Your task to perform on an android device: toggle improve location accuracy Image 0: 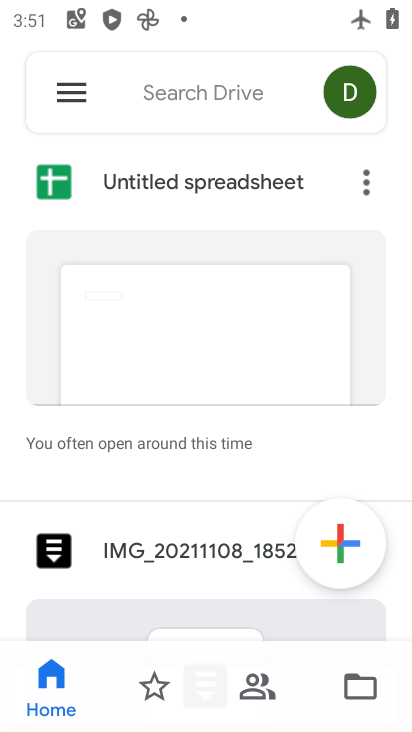
Step 0: press home button
Your task to perform on an android device: toggle improve location accuracy Image 1: 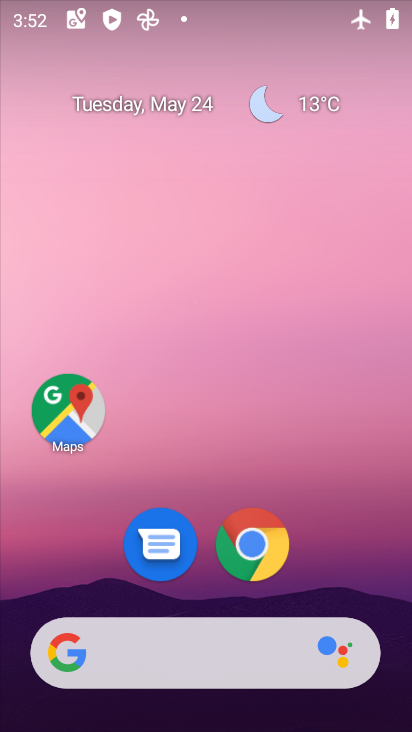
Step 1: drag from (317, 372) to (265, 0)
Your task to perform on an android device: toggle improve location accuracy Image 2: 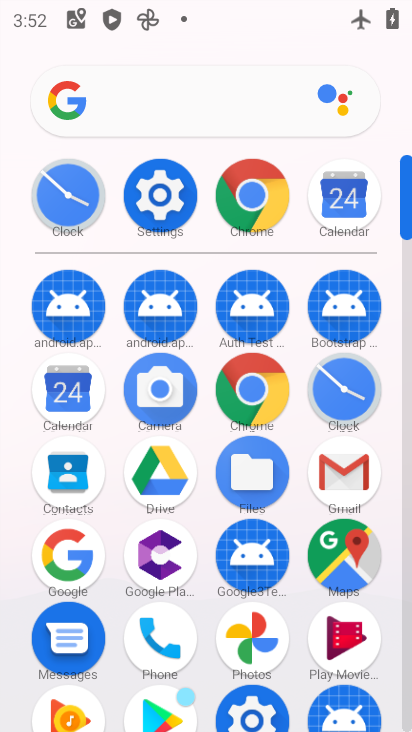
Step 2: click (189, 206)
Your task to perform on an android device: toggle improve location accuracy Image 3: 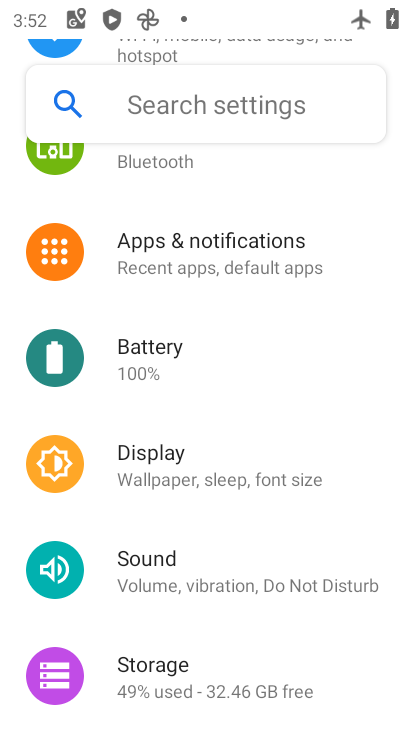
Step 3: drag from (235, 599) to (226, 215)
Your task to perform on an android device: toggle improve location accuracy Image 4: 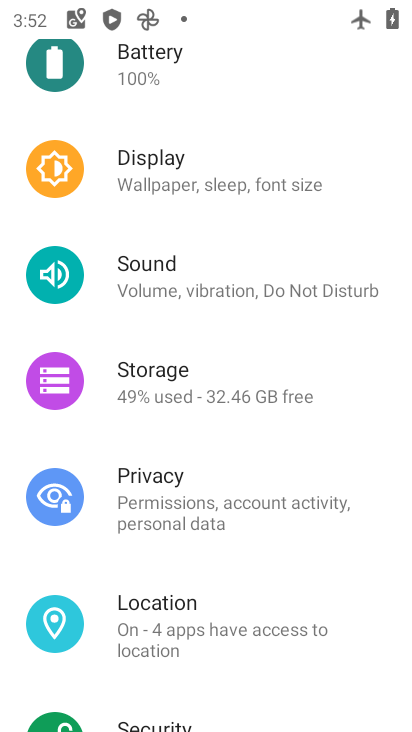
Step 4: click (214, 635)
Your task to perform on an android device: toggle improve location accuracy Image 5: 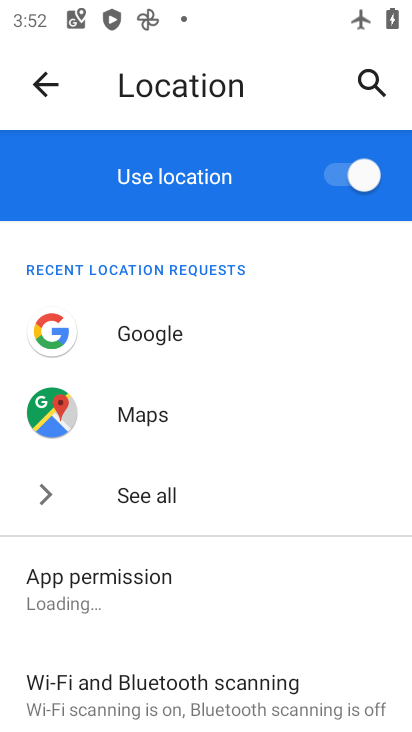
Step 5: drag from (206, 520) to (204, 248)
Your task to perform on an android device: toggle improve location accuracy Image 6: 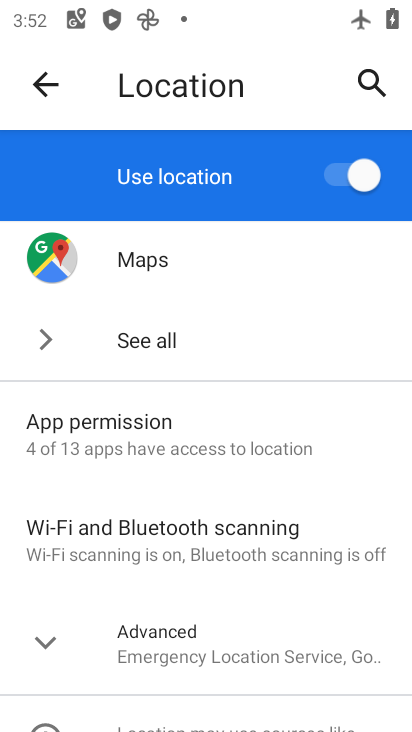
Step 6: click (170, 645)
Your task to perform on an android device: toggle improve location accuracy Image 7: 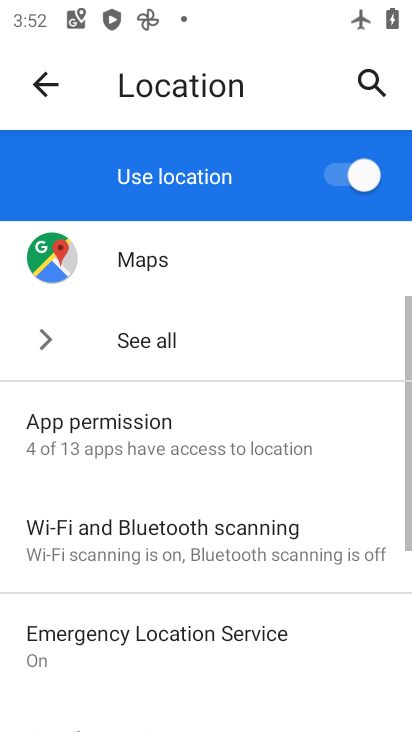
Step 7: drag from (199, 672) to (309, 216)
Your task to perform on an android device: toggle improve location accuracy Image 8: 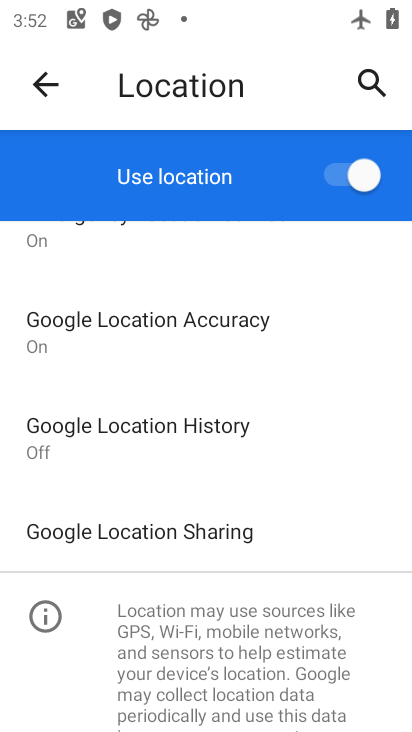
Step 8: click (187, 332)
Your task to perform on an android device: toggle improve location accuracy Image 9: 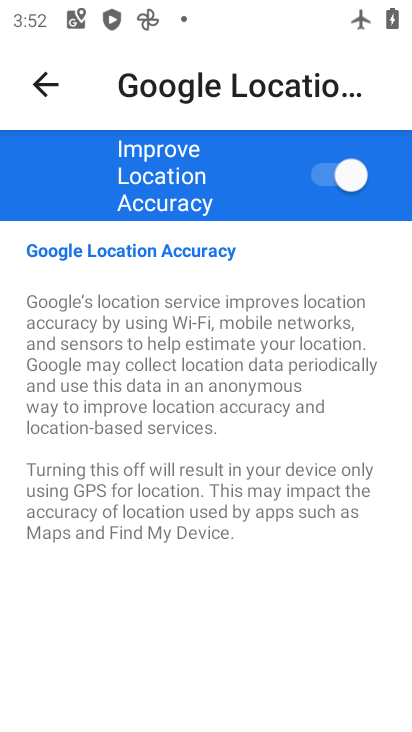
Step 9: click (331, 170)
Your task to perform on an android device: toggle improve location accuracy Image 10: 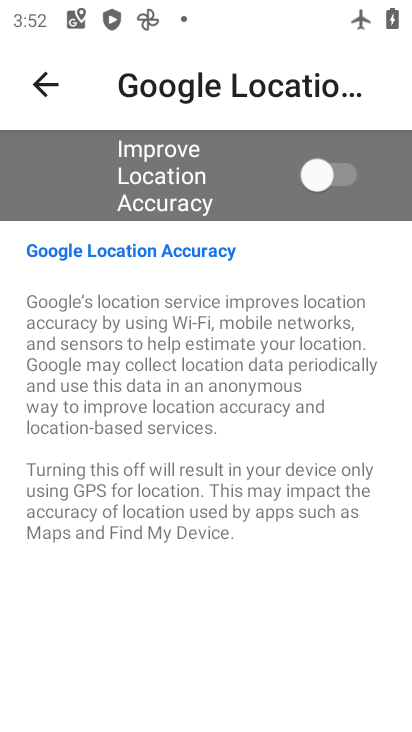
Step 10: task complete